Your task to perform on an android device: Open ESPN.com Image 0: 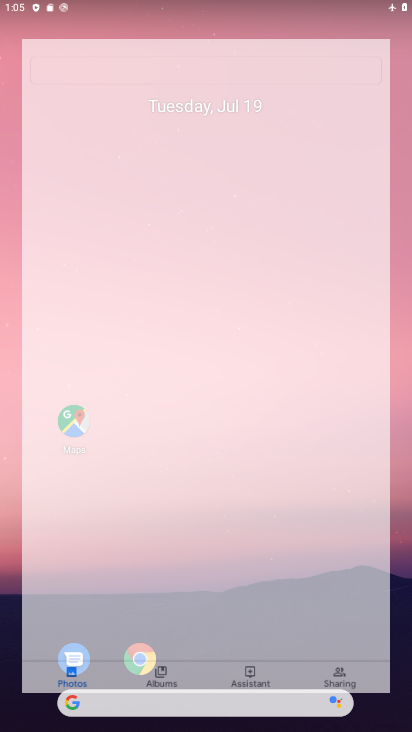
Step 0: press home button
Your task to perform on an android device: Open ESPN.com Image 1: 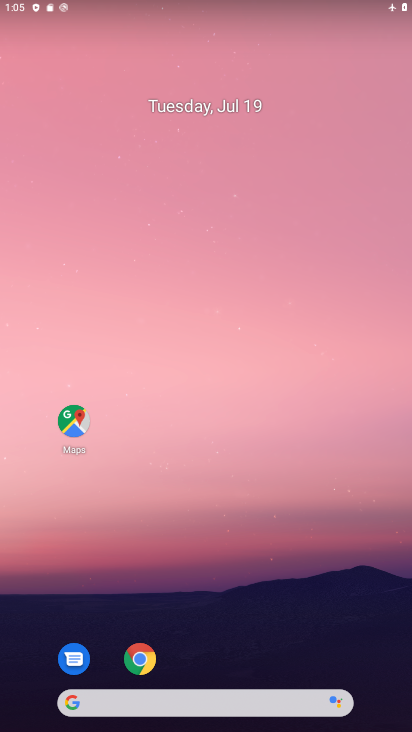
Step 1: click (136, 650)
Your task to perform on an android device: Open ESPN.com Image 2: 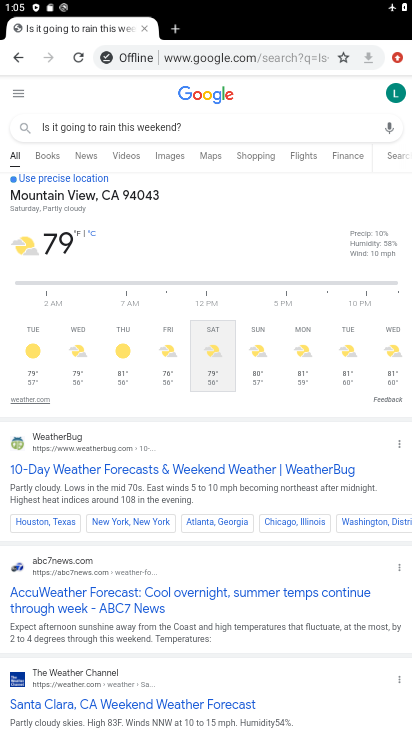
Step 2: drag from (275, 10) to (244, 580)
Your task to perform on an android device: Open ESPN.com Image 3: 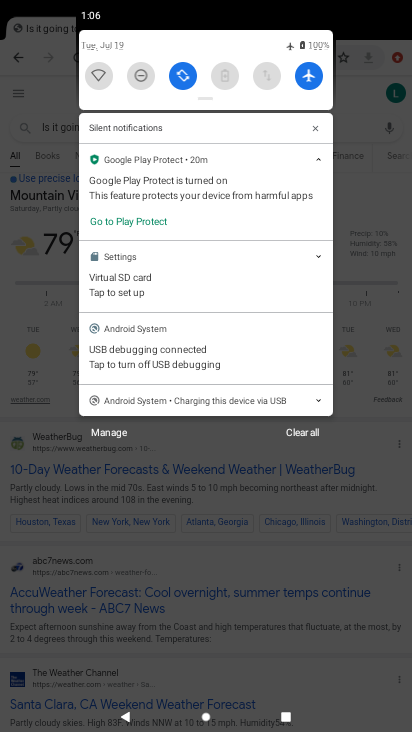
Step 3: click (298, 94)
Your task to perform on an android device: Open ESPN.com Image 4: 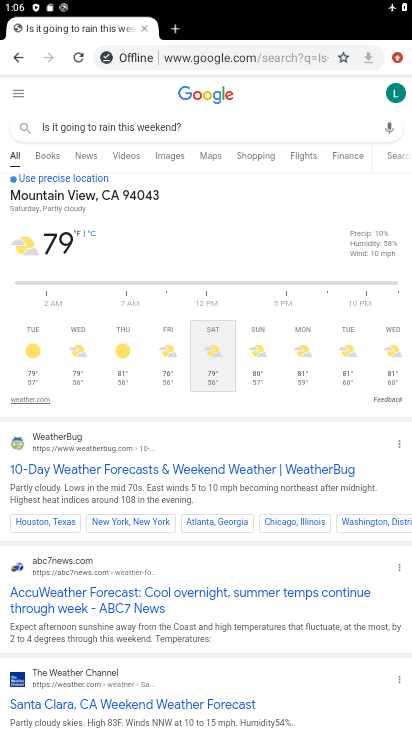
Step 4: drag from (332, 5) to (276, 470)
Your task to perform on an android device: Open ESPN.com Image 5: 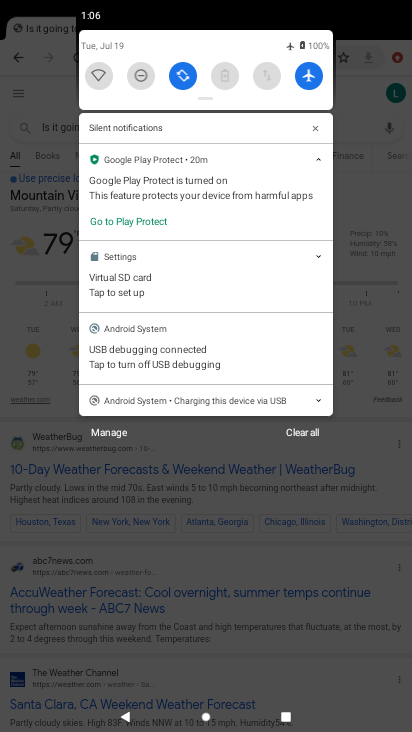
Step 5: click (311, 64)
Your task to perform on an android device: Open ESPN.com Image 6: 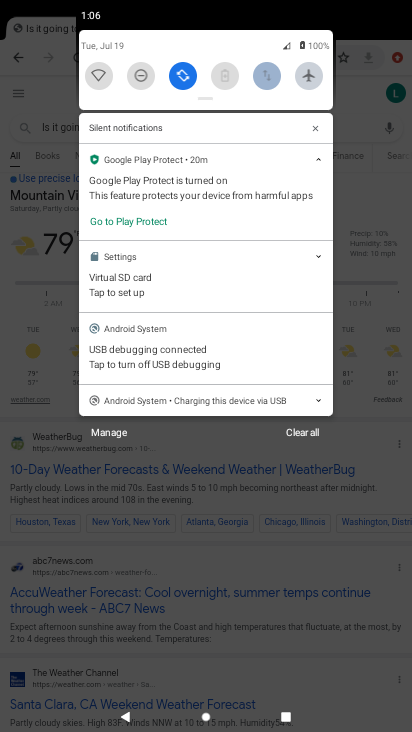
Step 6: drag from (216, 538) to (246, 175)
Your task to perform on an android device: Open ESPN.com Image 7: 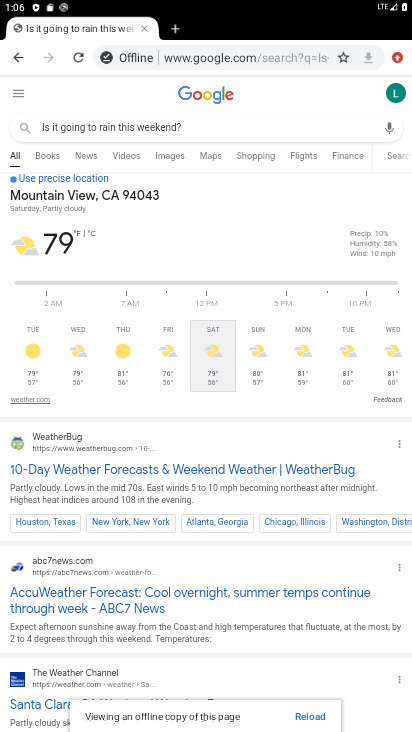
Step 7: click (221, 50)
Your task to perform on an android device: Open ESPN.com Image 8: 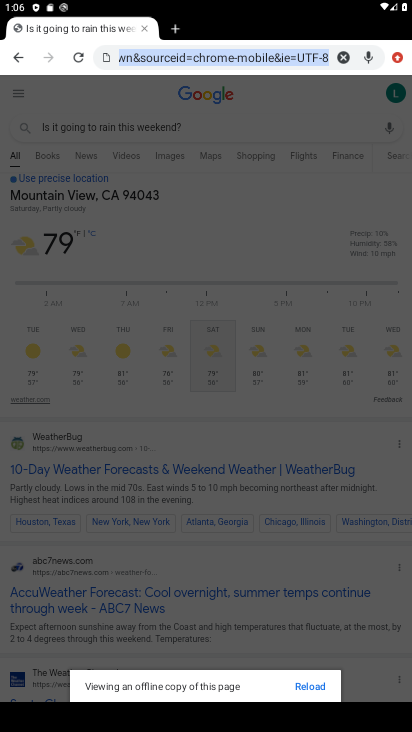
Step 8: type "ESPN.com"
Your task to perform on an android device: Open ESPN.com Image 9: 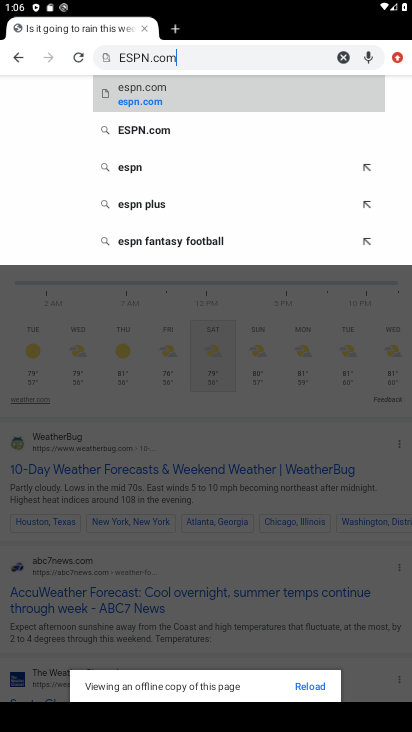
Step 9: type ""
Your task to perform on an android device: Open ESPN.com Image 10: 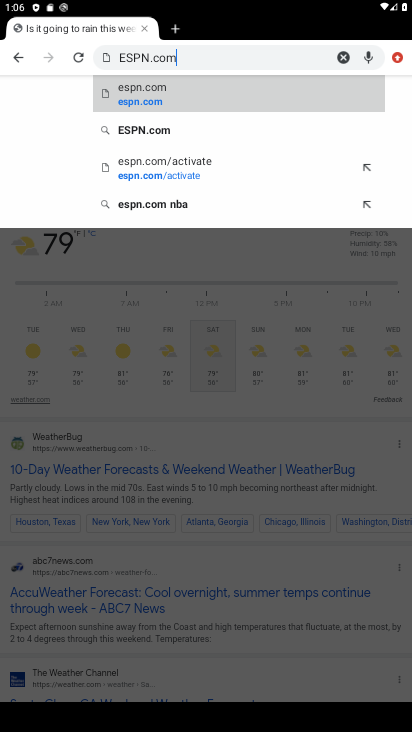
Step 10: click (214, 92)
Your task to perform on an android device: Open ESPN.com Image 11: 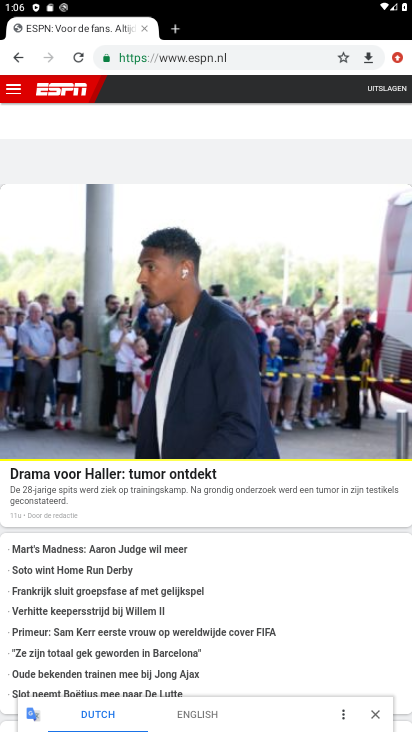
Step 11: task complete